Your task to perform on an android device: open app "Google Calendar" (install if not already installed) Image 0: 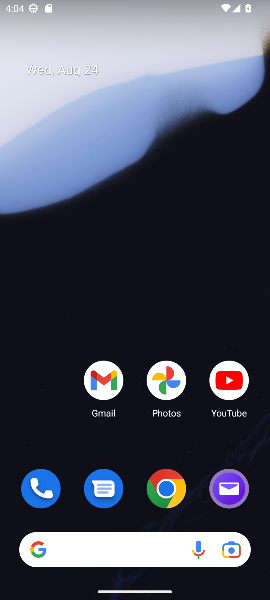
Step 0: drag from (133, 521) to (127, 117)
Your task to perform on an android device: open app "Google Calendar" (install if not already installed) Image 1: 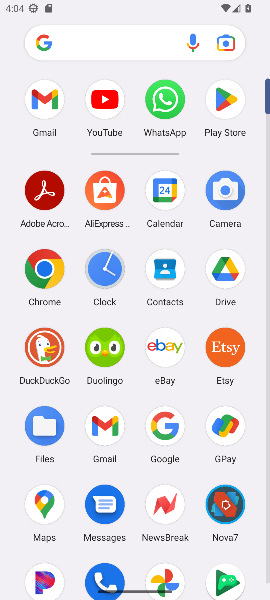
Step 1: click (233, 112)
Your task to perform on an android device: open app "Google Calendar" (install if not already installed) Image 2: 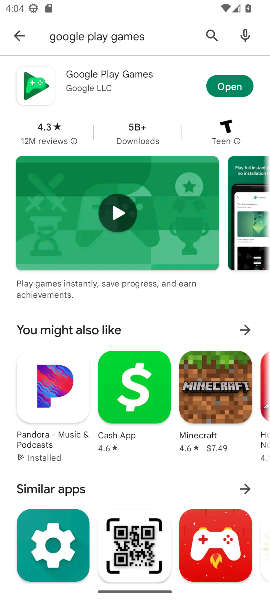
Step 2: click (207, 32)
Your task to perform on an android device: open app "Google Calendar" (install if not already installed) Image 3: 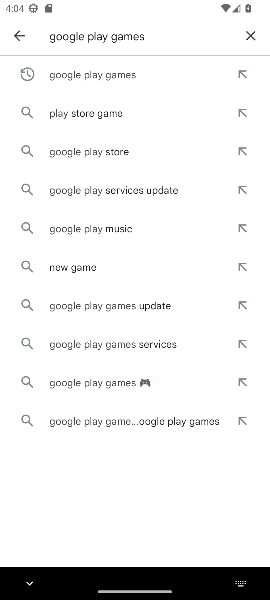
Step 3: click (243, 31)
Your task to perform on an android device: open app "Google Calendar" (install if not already installed) Image 4: 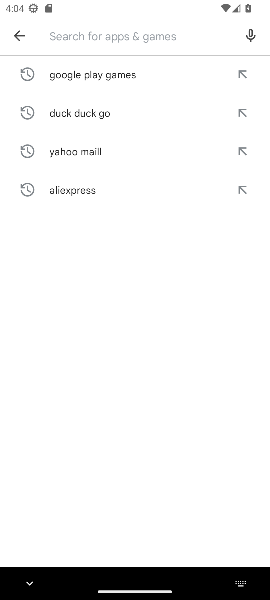
Step 4: type "google calendar"
Your task to perform on an android device: open app "Google Calendar" (install if not already installed) Image 5: 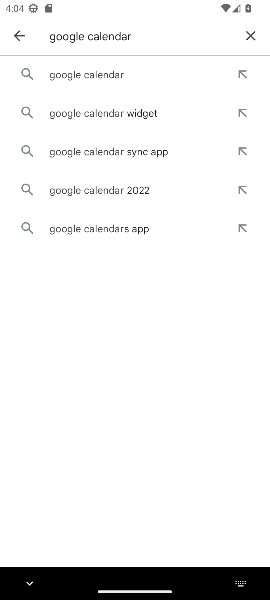
Step 5: click (127, 84)
Your task to perform on an android device: open app "Google Calendar" (install if not already installed) Image 6: 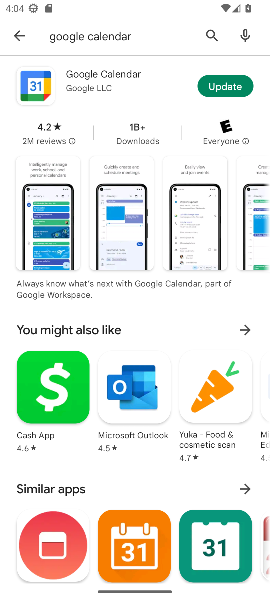
Step 6: click (210, 85)
Your task to perform on an android device: open app "Google Calendar" (install if not already installed) Image 7: 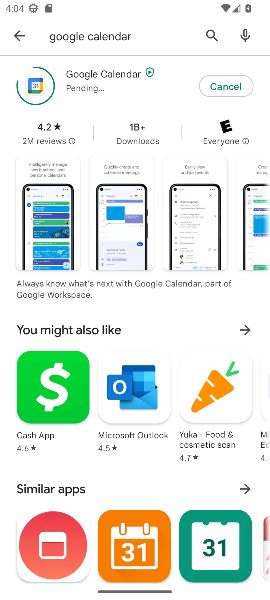
Step 7: task complete